Your task to perform on an android device: What's the weather? Image 0: 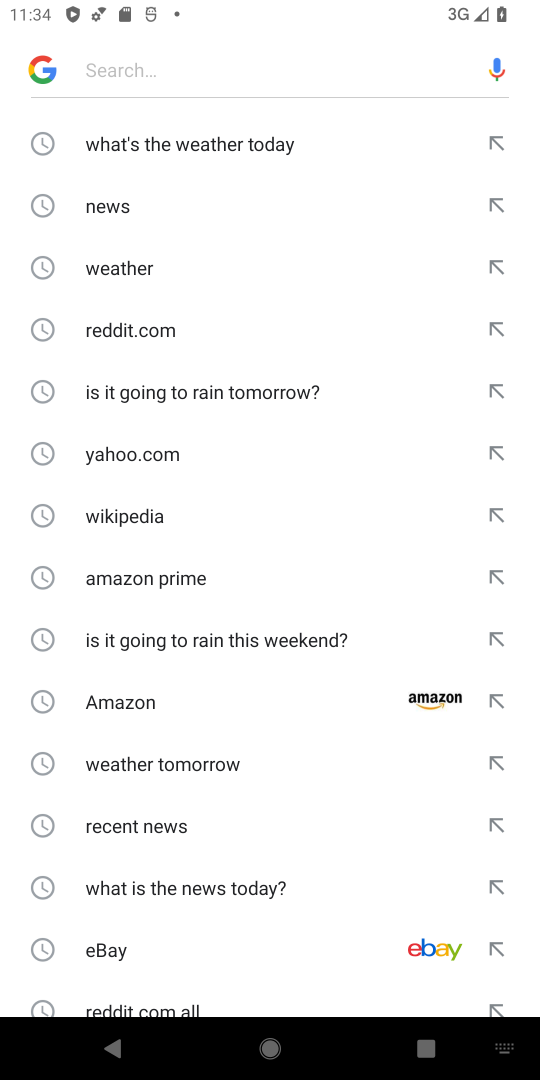
Step 0: press home button
Your task to perform on an android device: What's the weather? Image 1: 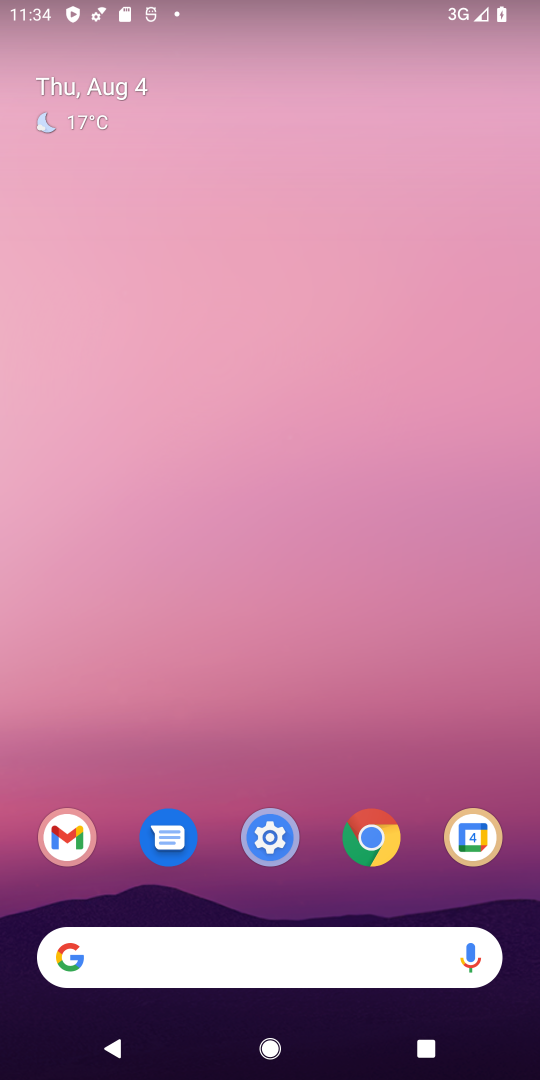
Step 1: drag from (430, 835) to (231, 17)
Your task to perform on an android device: What's the weather? Image 2: 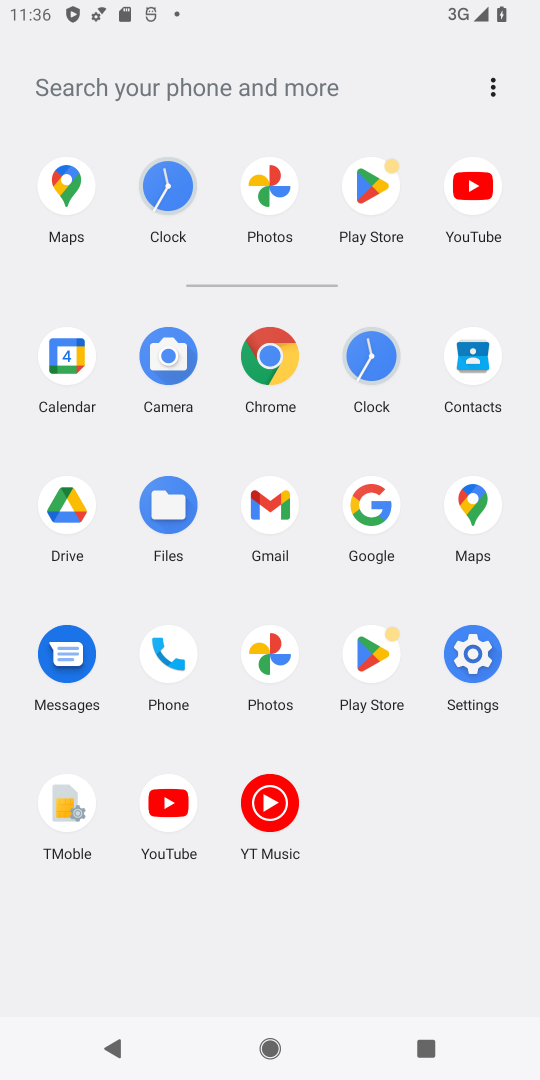
Step 2: click (368, 507)
Your task to perform on an android device: What's the weather? Image 3: 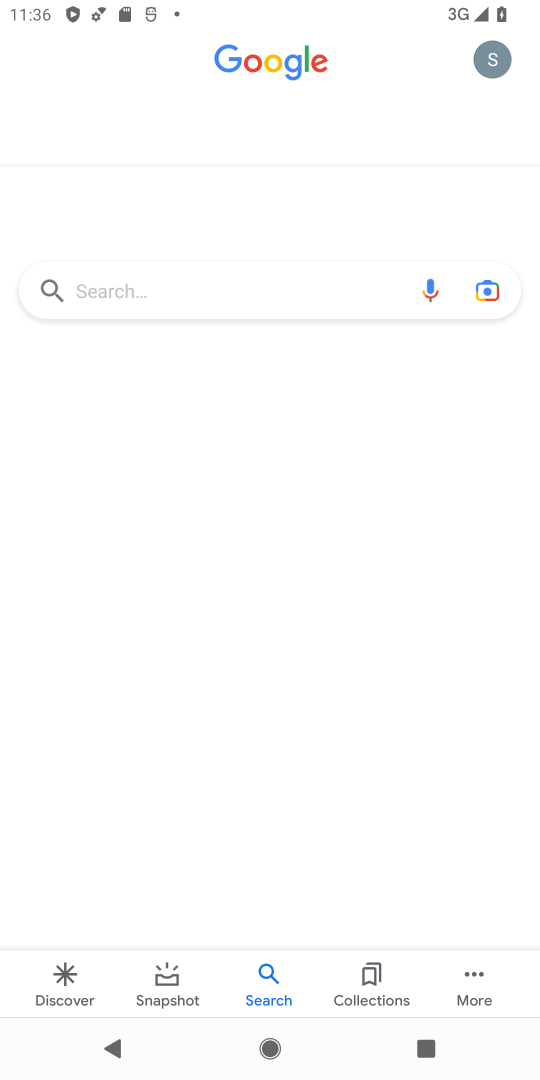
Step 3: click (137, 282)
Your task to perform on an android device: What's the weather? Image 4: 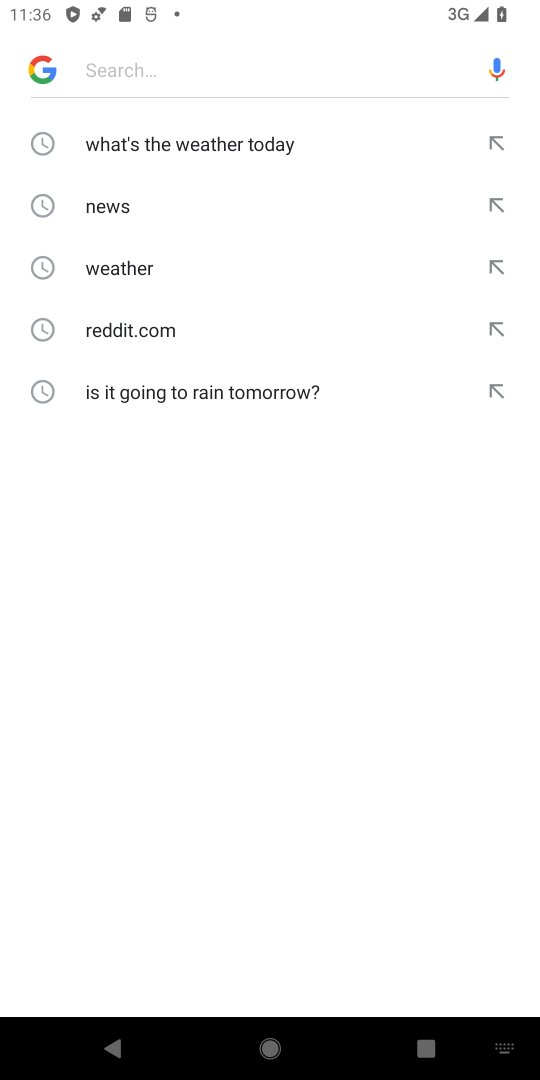
Step 4: type "What's the weather?"
Your task to perform on an android device: What's the weather? Image 5: 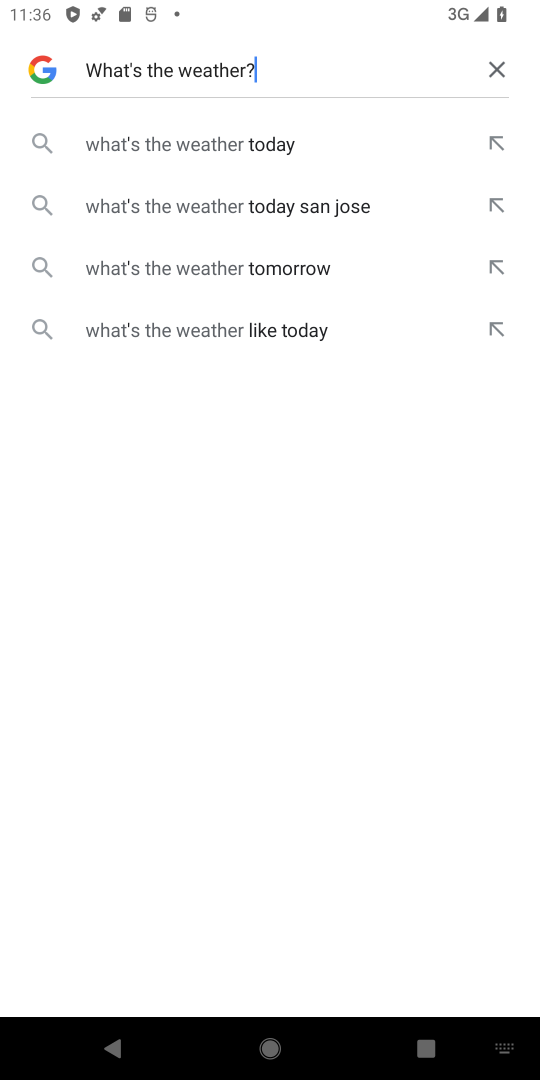
Step 5: task complete